Your task to perform on an android device: find photos in the google photos app Image 0: 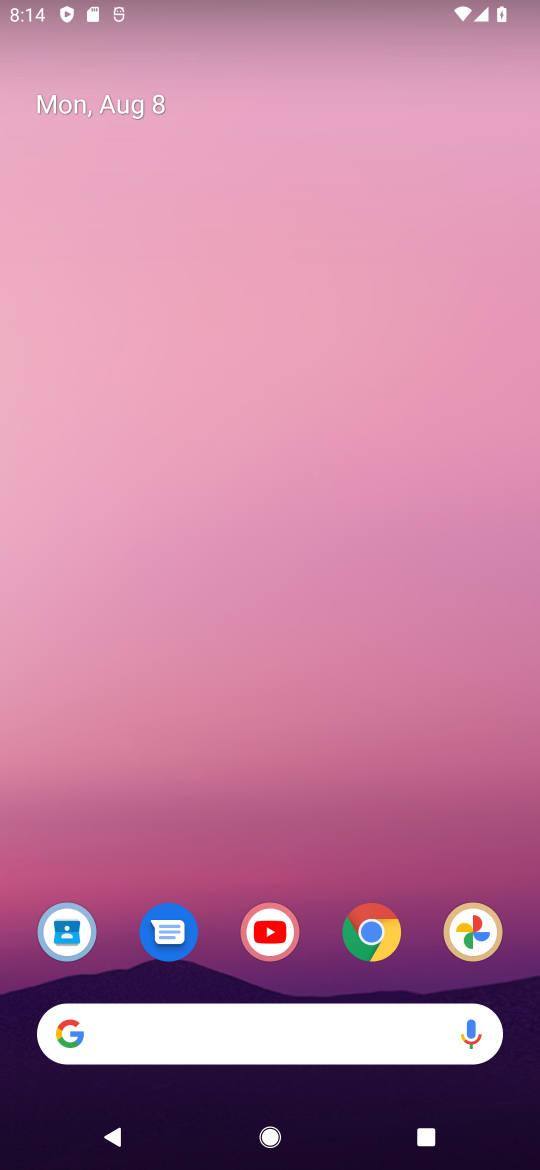
Step 0: drag from (246, 799) to (322, 149)
Your task to perform on an android device: find photos in the google photos app Image 1: 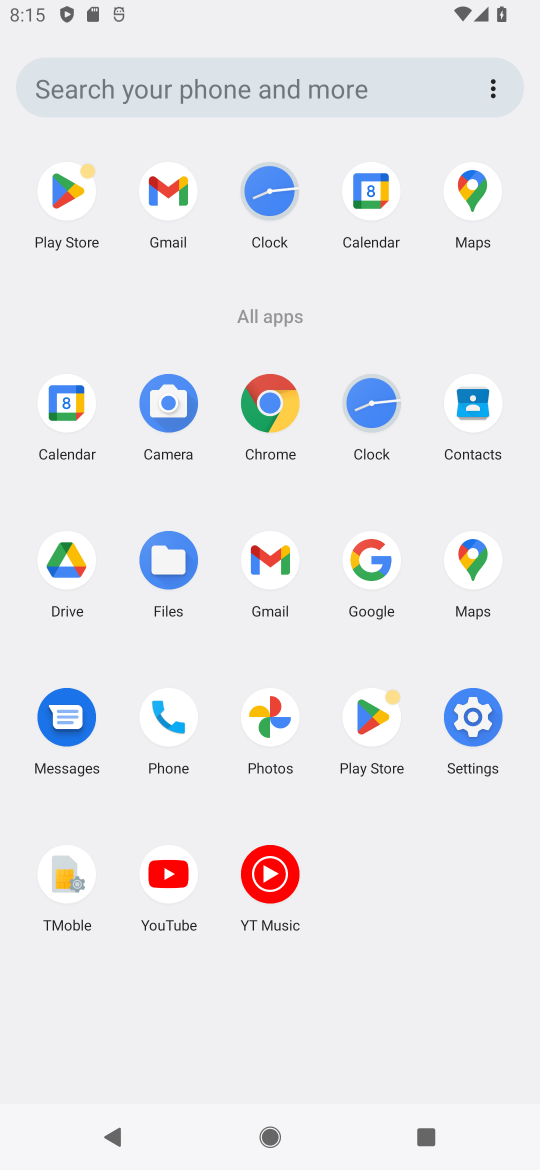
Step 1: click (274, 722)
Your task to perform on an android device: find photos in the google photos app Image 2: 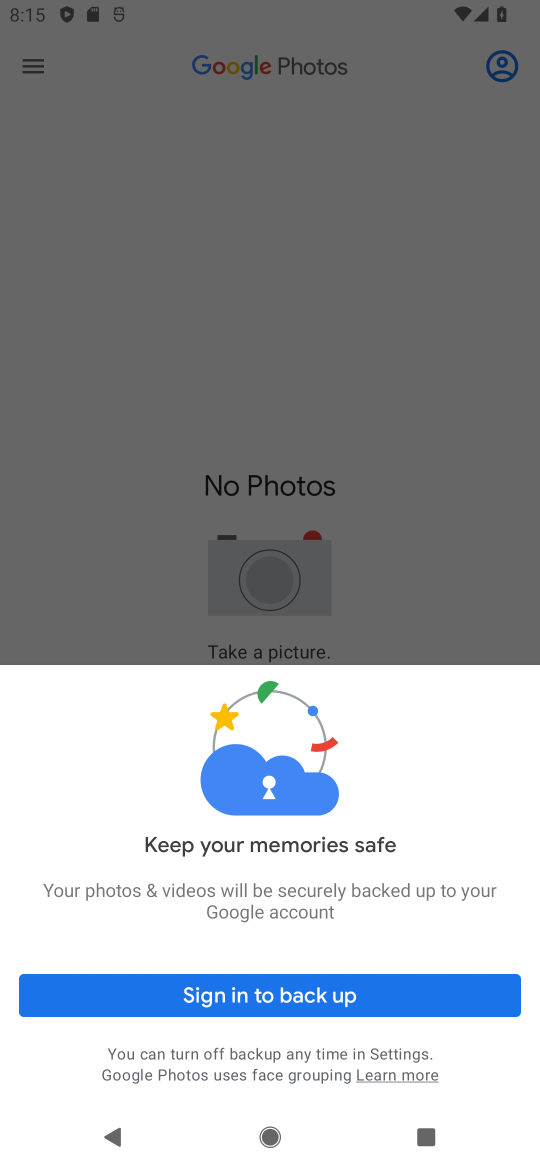
Step 2: click (284, 992)
Your task to perform on an android device: find photos in the google photos app Image 3: 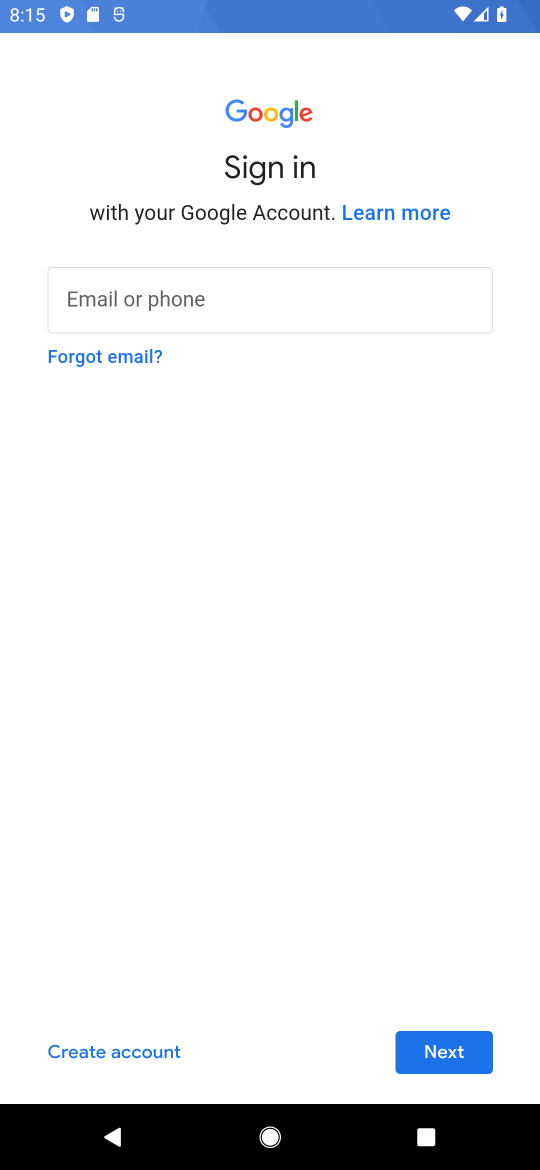
Step 3: task complete